Your task to perform on an android device: Show me the alarms in the clock app Image 0: 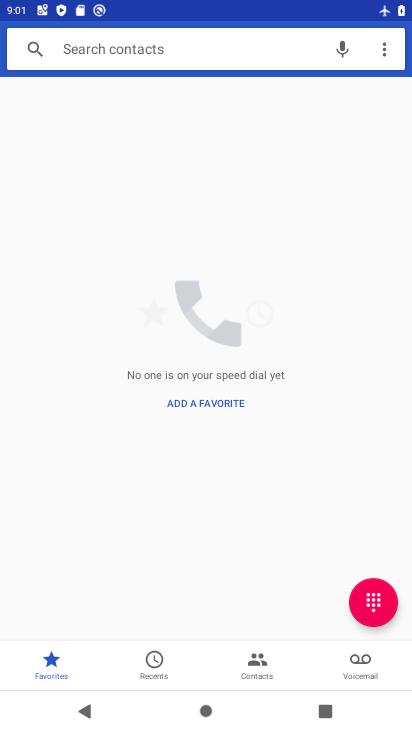
Step 0: press home button
Your task to perform on an android device: Show me the alarms in the clock app Image 1: 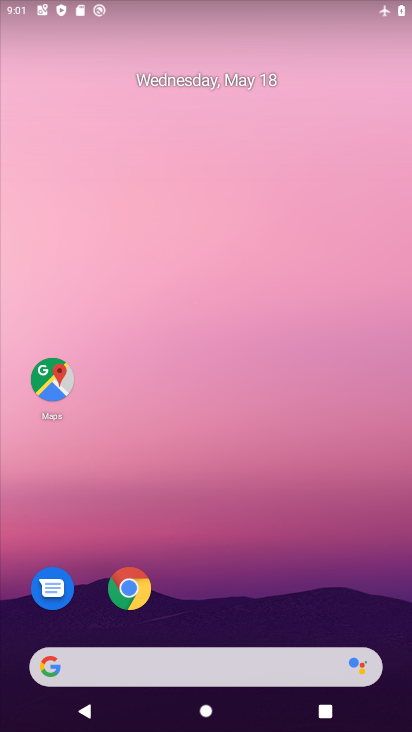
Step 1: drag from (284, 616) to (241, 8)
Your task to perform on an android device: Show me the alarms in the clock app Image 2: 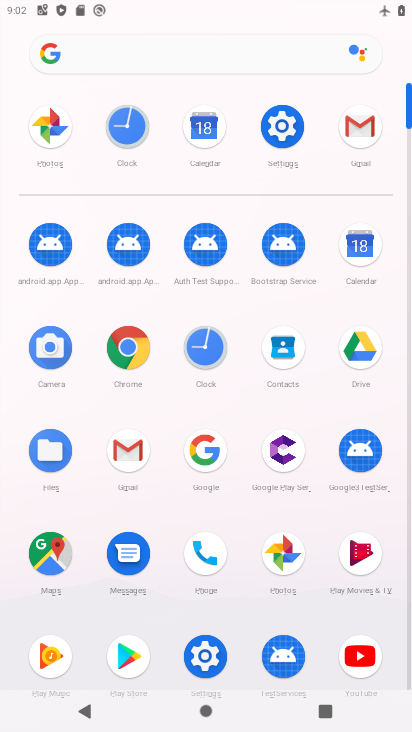
Step 2: click (133, 140)
Your task to perform on an android device: Show me the alarms in the clock app Image 3: 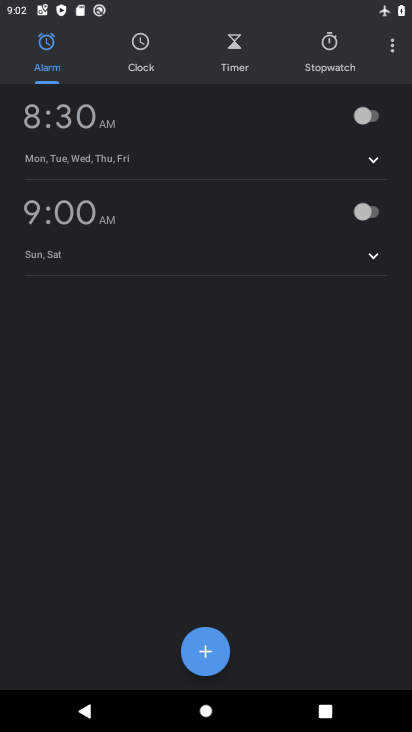
Step 3: task complete